Your task to perform on an android device: Go to network settings Image 0: 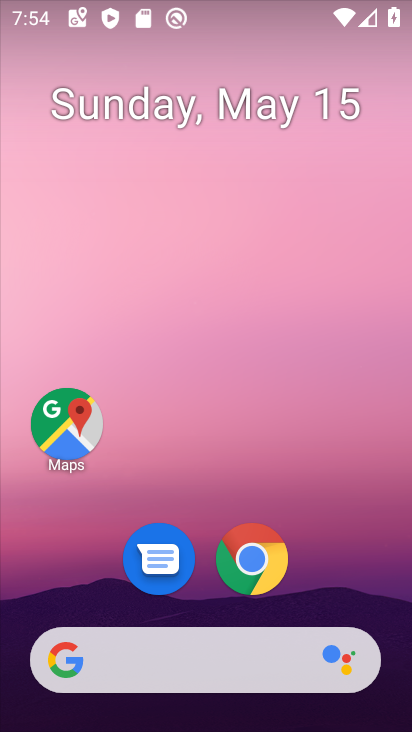
Step 0: drag from (336, 587) to (324, 163)
Your task to perform on an android device: Go to network settings Image 1: 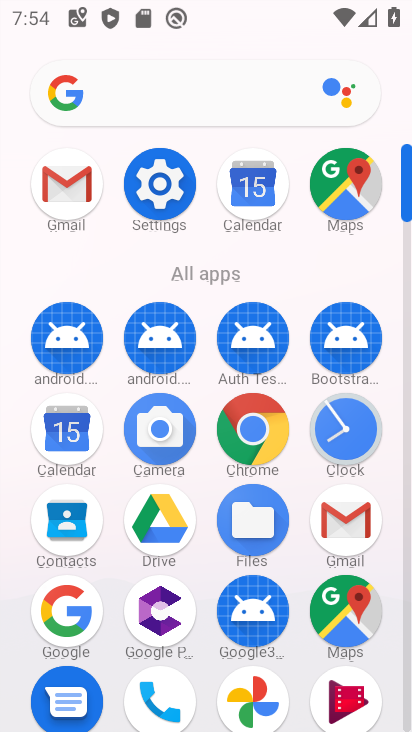
Step 1: click (155, 216)
Your task to perform on an android device: Go to network settings Image 2: 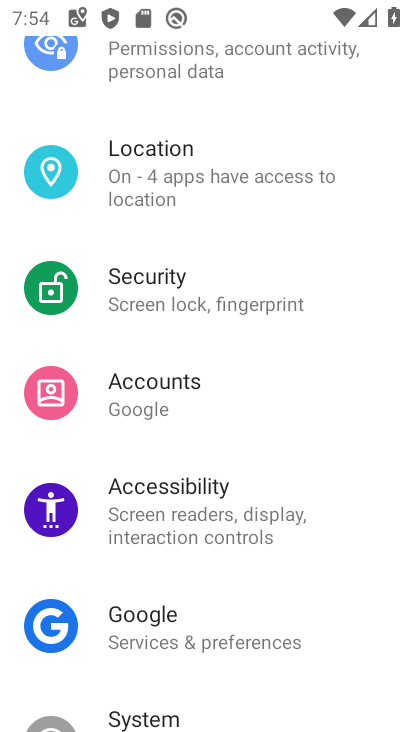
Step 2: drag from (155, 216) to (169, 544)
Your task to perform on an android device: Go to network settings Image 3: 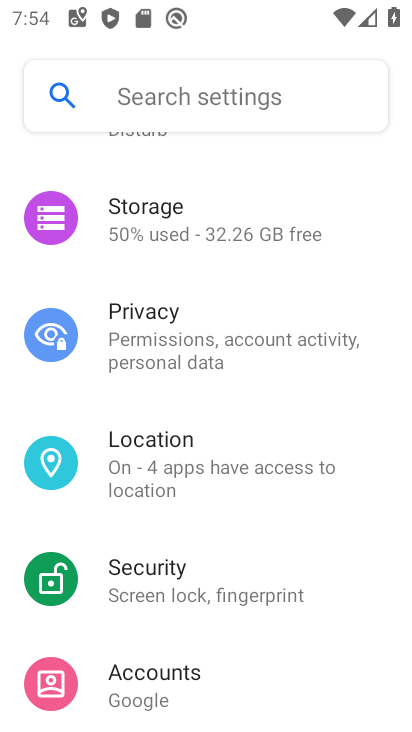
Step 3: drag from (234, 234) to (233, 484)
Your task to perform on an android device: Go to network settings Image 4: 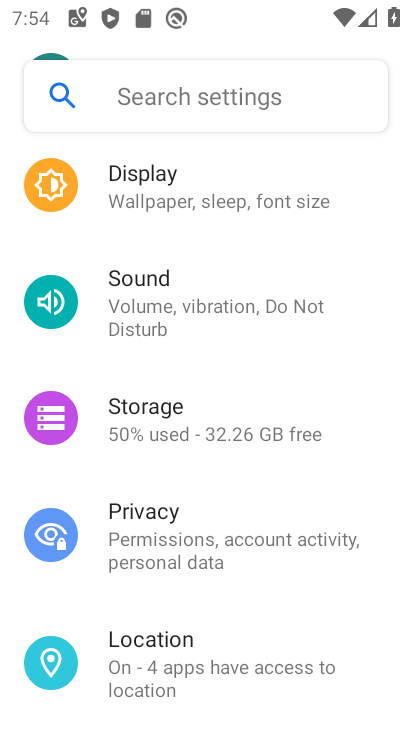
Step 4: drag from (250, 188) to (241, 502)
Your task to perform on an android device: Go to network settings Image 5: 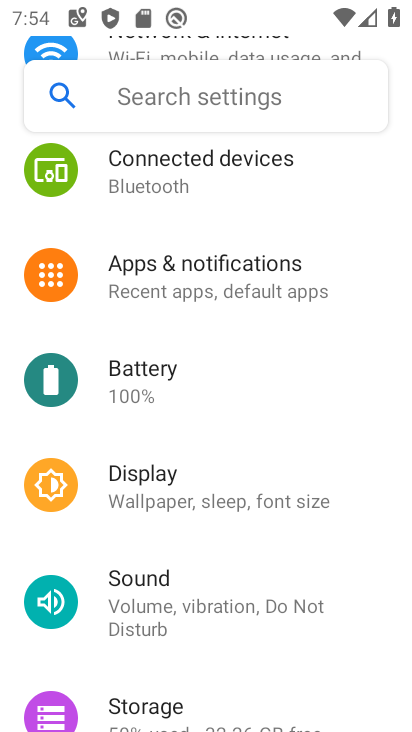
Step 5: drag from (248, 236) to (241, 379)
Your task to perform on an android device: Go to network settings Image 6: 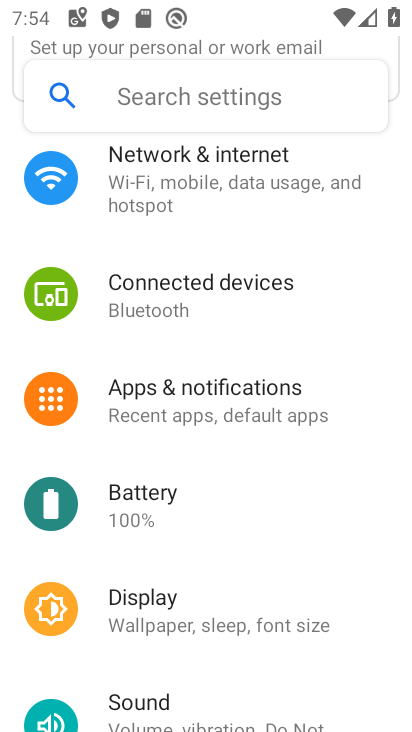
Step 6: click (225, 164)
Your task to perform on an android device: Go to network settings Image 7: 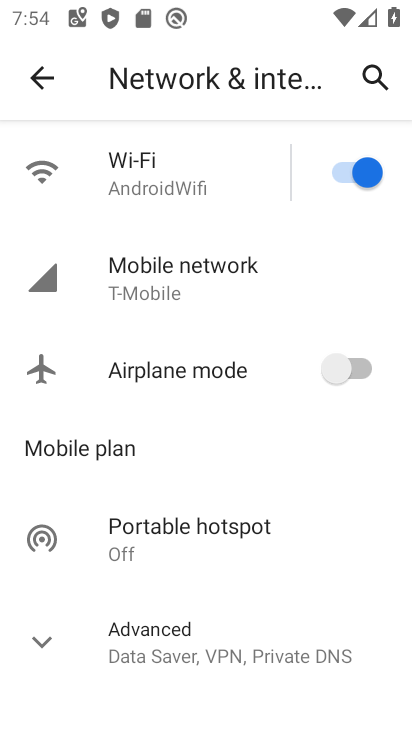
Step 7: task complete